Your task to perform on an android device: Go to location settings Image 0: 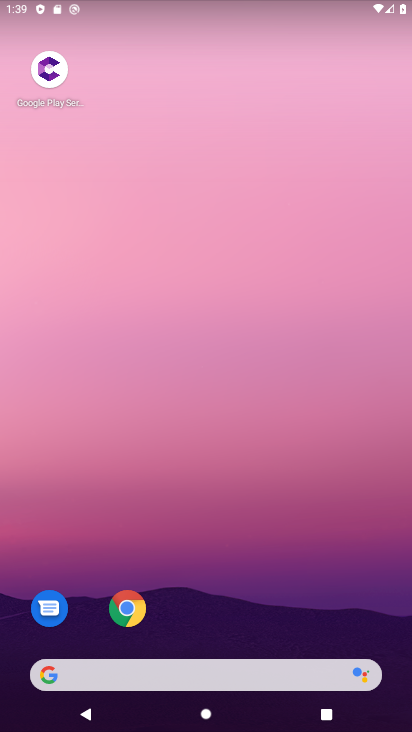
Step 0: drag from (260, 592) to (223, 158)
Your task to perform on an android device: Go to location settings Image 1: 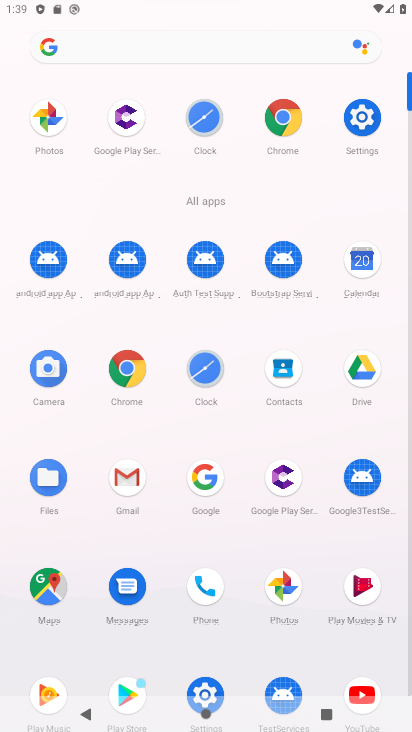
Step 1: click (364, 117)
Your task to perform on an android device: Go to location settings Image 2: 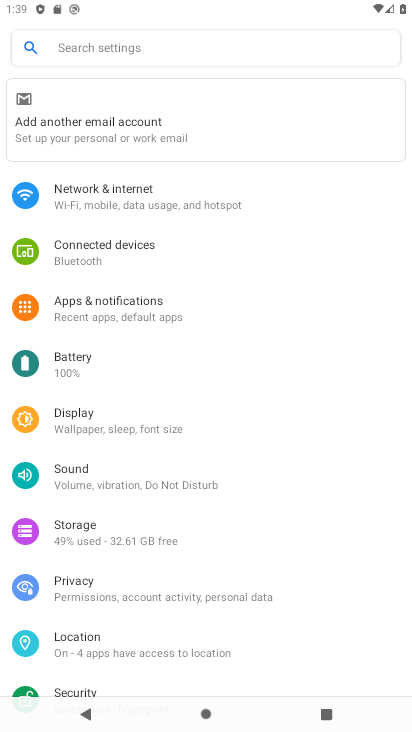
Step 2: drag from (132, 450) to (146, 363)
Your task to perform on an android device: Go to location settings Image 3: 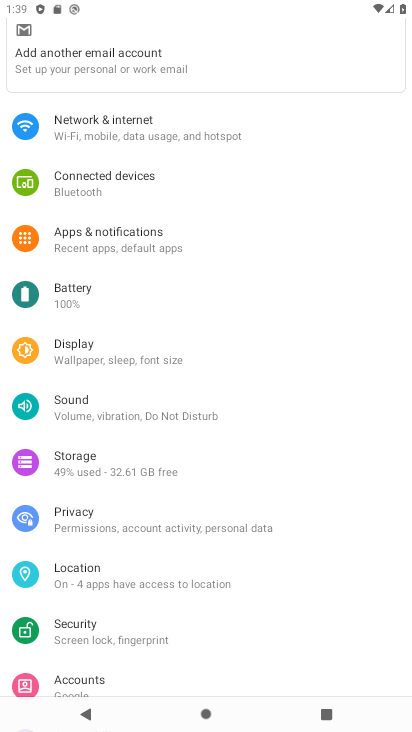
Step 3: click (73, 574)
Your task to perform on an android device: Go to location settings Image 4: 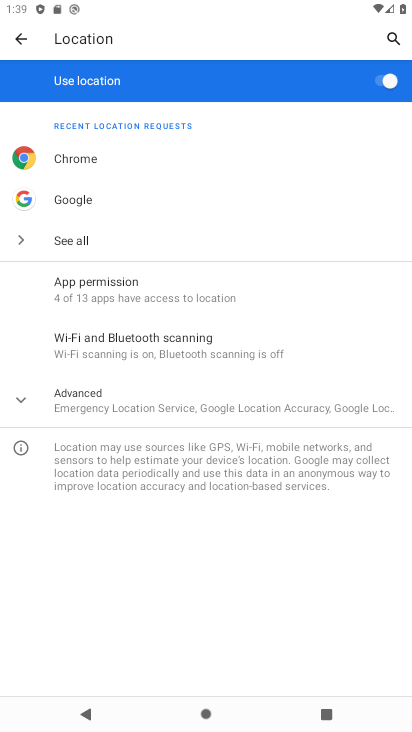
Step 4: task complete